Your task to perform on an android device: Open accessibility settings Image 0: 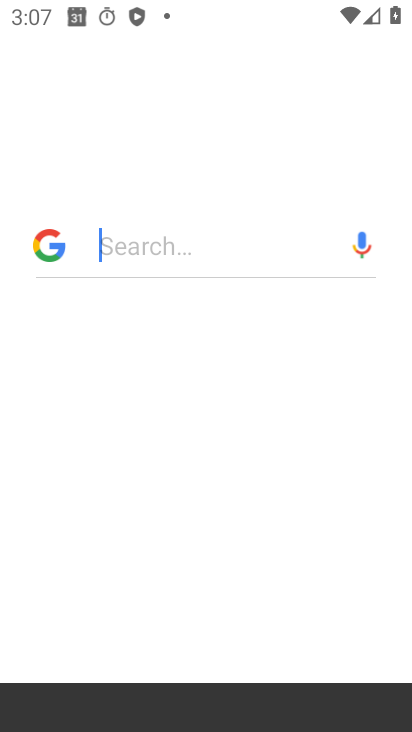
Step 0: drag from (300, 656) to (203, 4)
Your task to perform on an android device: Open accessibility settings Image 1: 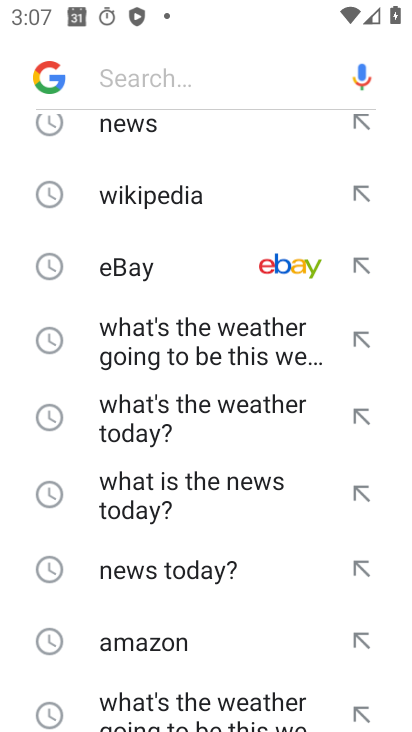
Step 1: press home button
Your task to perform on an android device: Open accessibility settings Image 2: 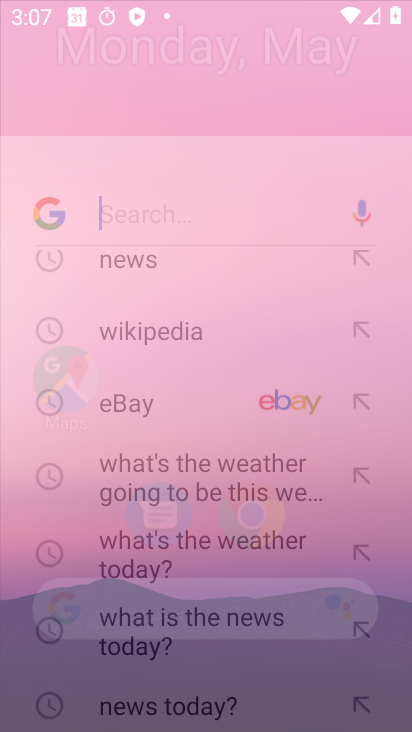
Step 2: press home button
Your task to perform on an android device: Open accessibility settings Image 3: 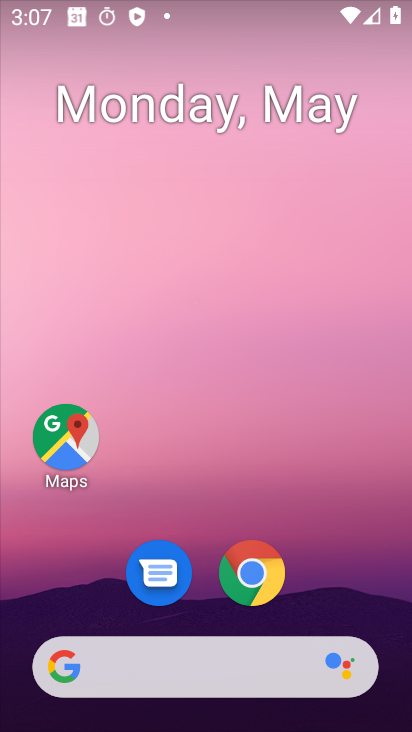
Step 3: drag from (342, 572) to (408, 699)
Your task to perform on an android device: Open accessibility settings Image 4: 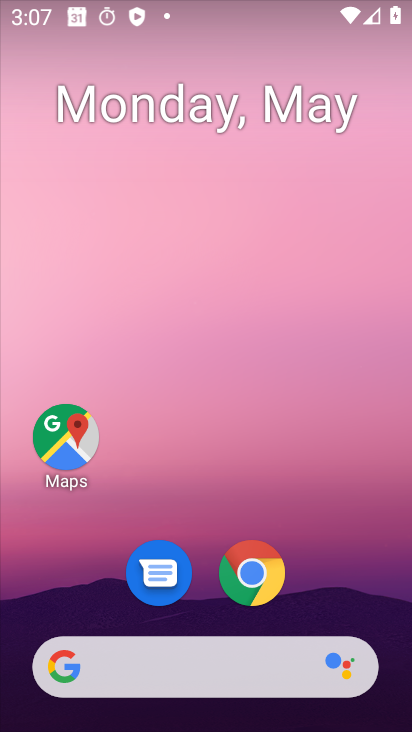
Step 4: click (353, 203)
Your task to perform on an android device: Open accessibility settings Image 5: 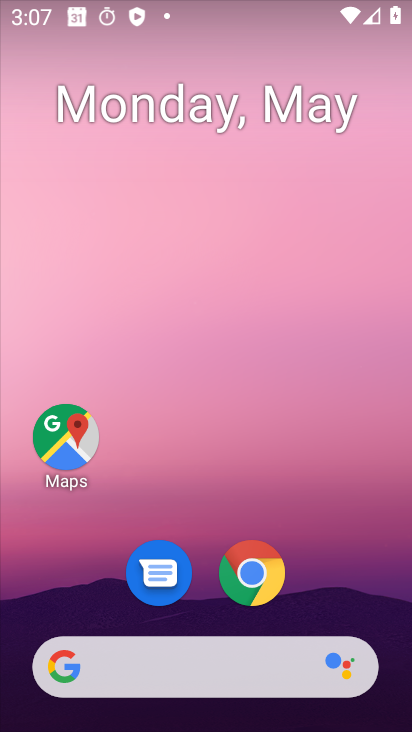
Step 5: drag from (236, 234) to (176, 15)
Your task to perform on an android device: Open accessibility settings Image 6: 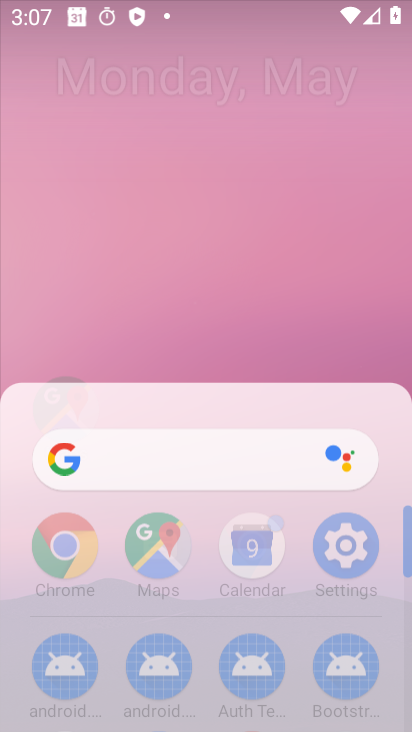
Step 6: drag from (291, 499) to (151, 35)
Your task to perform on an android device: Open accessibility settings Image 7: 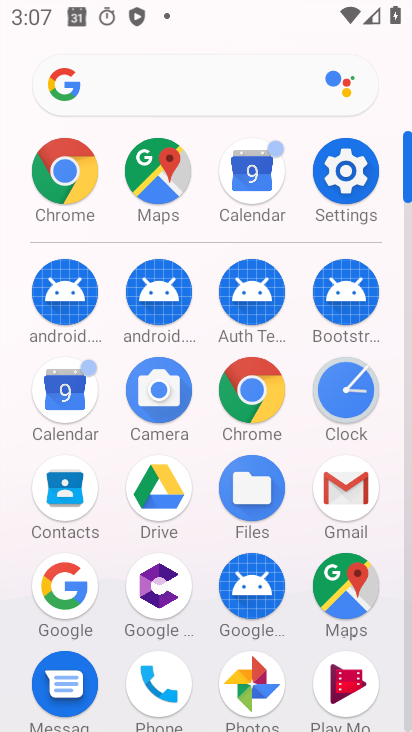
Step 7: drag from (263, 390) to (142, 1)
Your task to perform on an android device: Open accessibility settings Image 8: 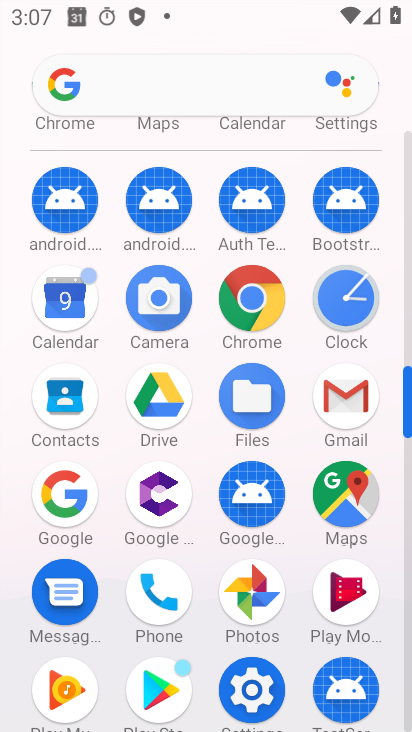
Step 8: click (331, 183)
Your task to perform on an android device: Open accessibility settings Image 9: 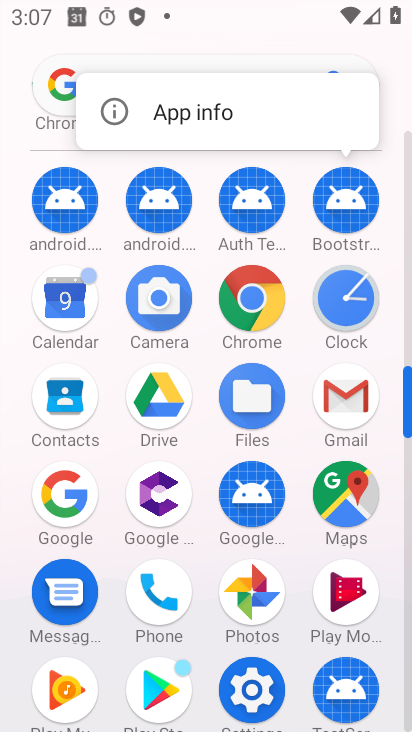
Step 9: press back button
Your task to perform on an android device: Open accessibility settings Image 10: 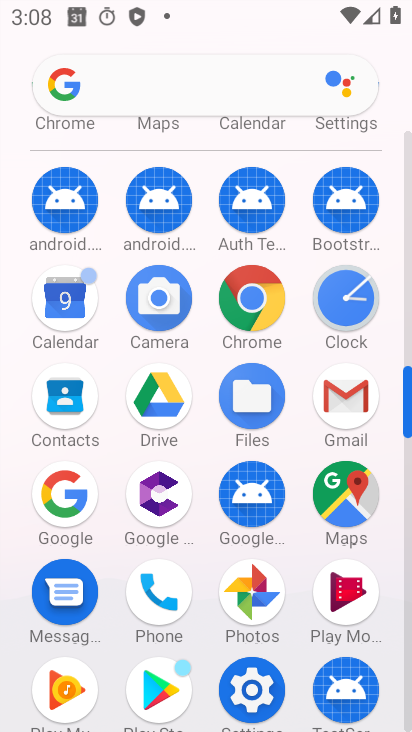
Step 10: click (258, 690)
Your task to perform on an android device: Open accessibility settings Image 11: 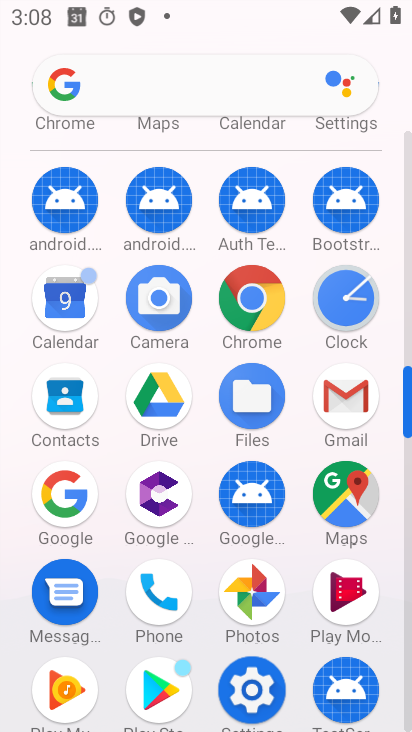
Step 11: click (250, 700)
Your task to perform on an android device: Open accessibility settings Image 12: 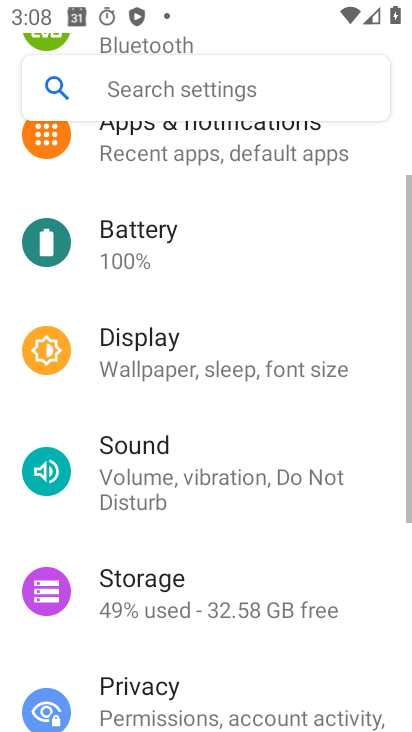
Step 12: click (255, 695)
Your task to perform on an android device: Open accessibility settings Image 13: 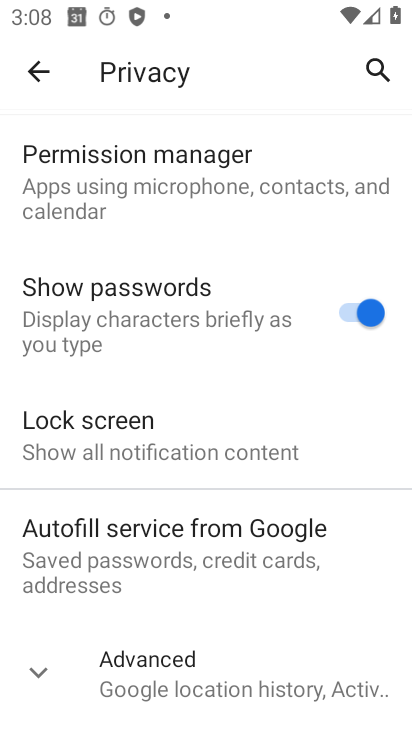
Step 13: click (27, 73)
Your task to perform on an android device: Open accessibility settings Image 14: 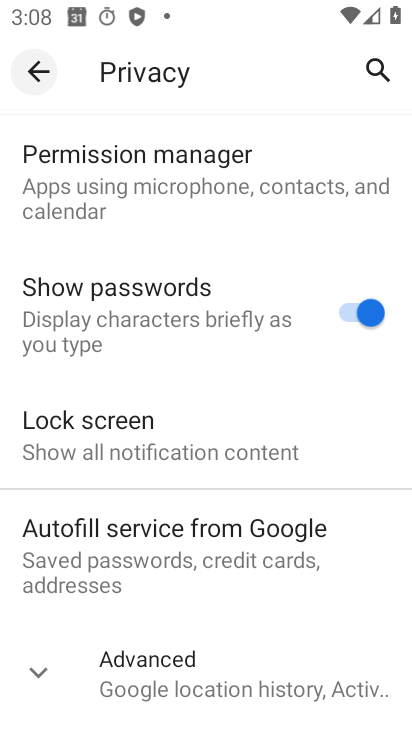
Step 14: click (30, 67)
Your task to perform on an android device: Open accessibility settings Image 15: 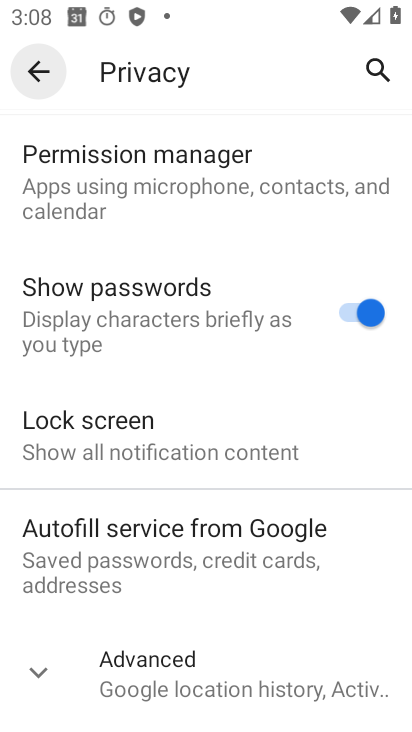
Step 15: click (30, 67)
Your task to perform on an android device: Open accessibility settings Image 16: 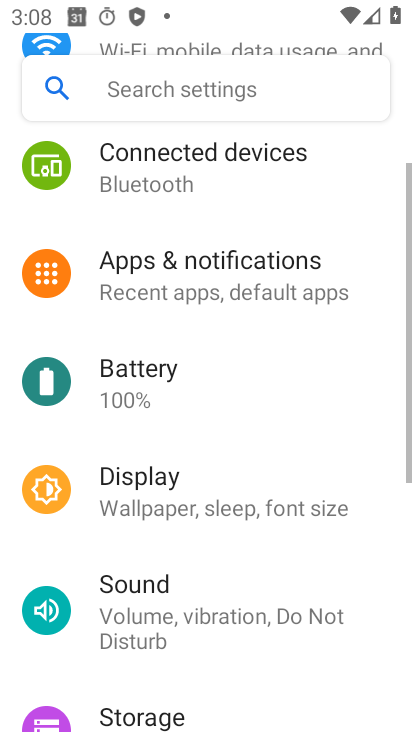
Step 16: drag from (237, 545) to (177, 191)
Your task to perform on an android device: Open accessibility settings Image 17: 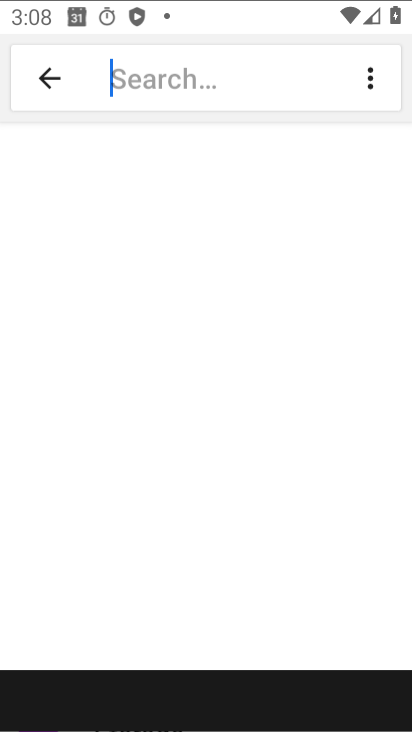
Step 17: drag from (216, 504) to (177, 231)
Your task to perform on an android device: Open accessibility settings Image 18: 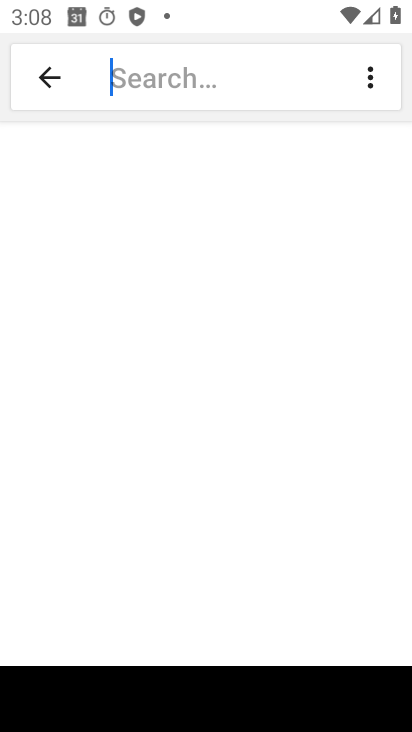
Step 18: click (40, 75)
Your task to perform on an android device: Open accessibility settings Image 19: 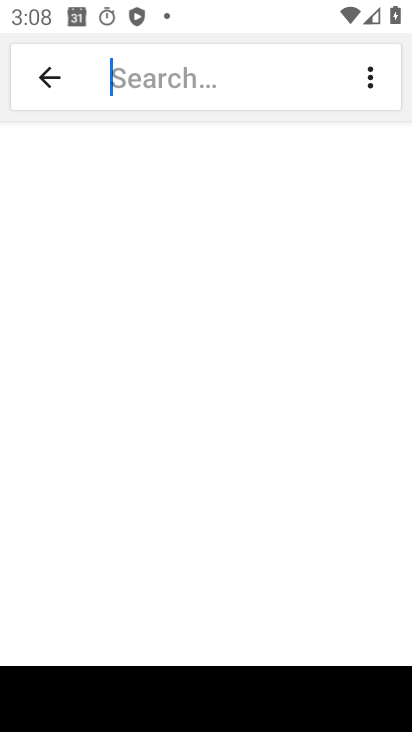
Step 19: click (40, 75)
Your task to perform on an android device: Open accessibility settings Image 20: 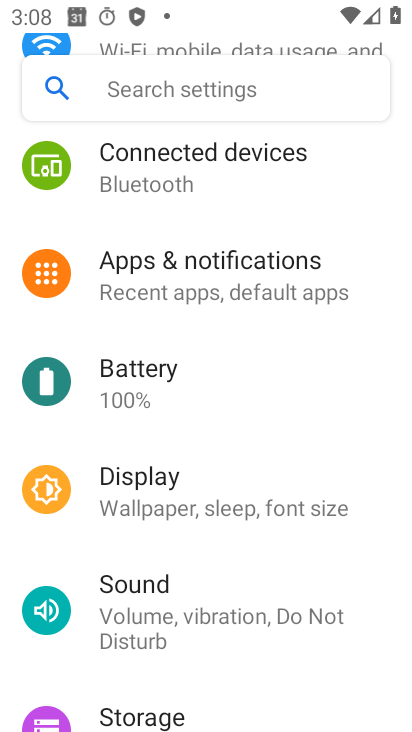
Step 20: drag from (174, 573) to (147, 124)
Your task to perform on an android device: Open accessibility settings Image 21: 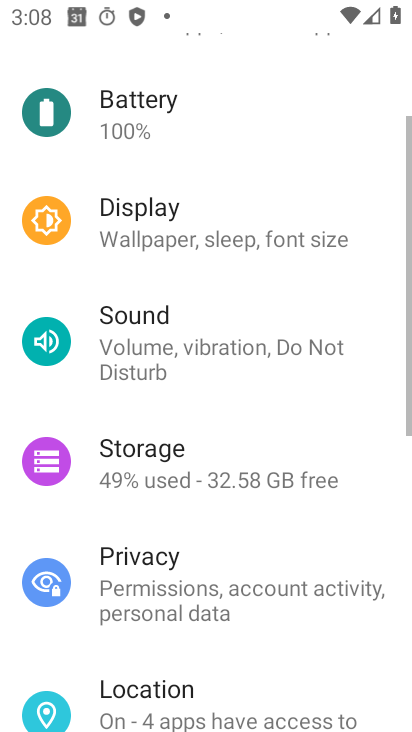
Step 21: drag from (199, 461) to (141, 99)
Your task to perform on an android device: Open accessibility settings Image 22: 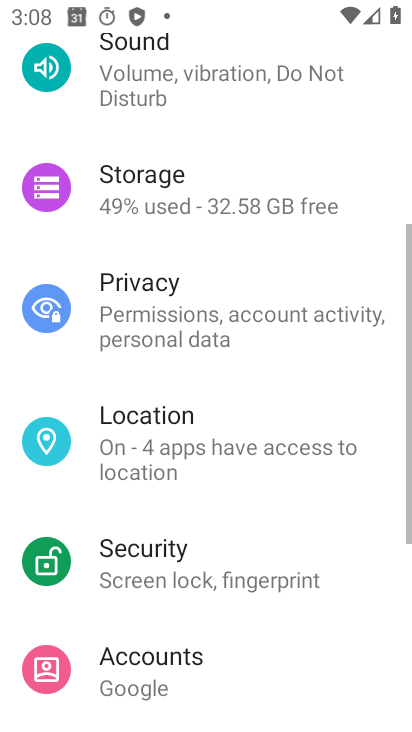
Step 22: drag from (191, 525) to (95, 87)
Your task to perform on an android device: Open accessibility settings Image 23: 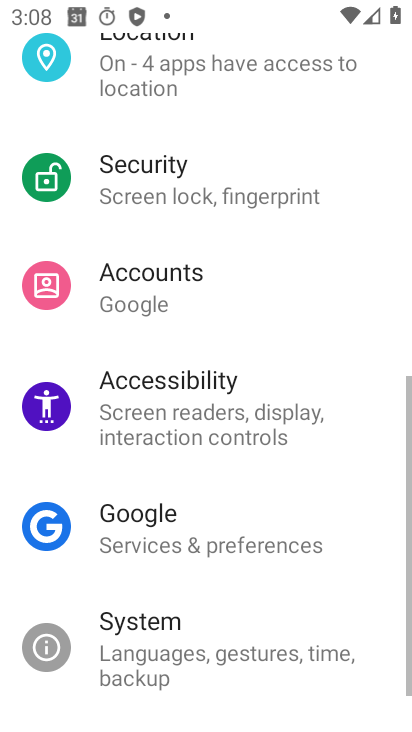
Step 23: drag from (208, 583) to (100, 57)
Your task to perform on an android device: Open accessibility settings Image 24: 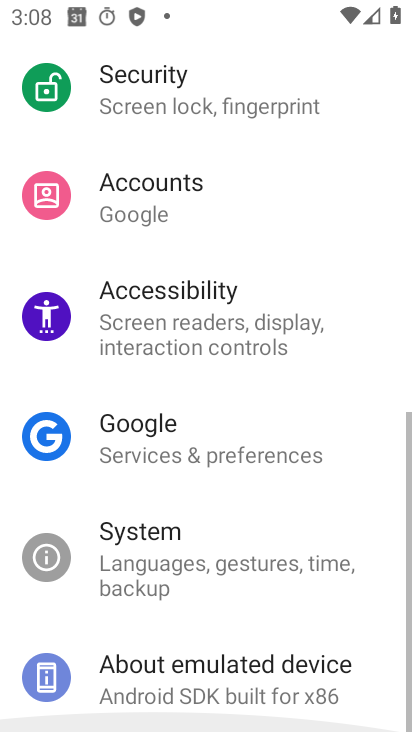
Step 24: drag from (183, 527) to (148, 32)
Your task to perform on an android device: Open accessibility settings Image 25: 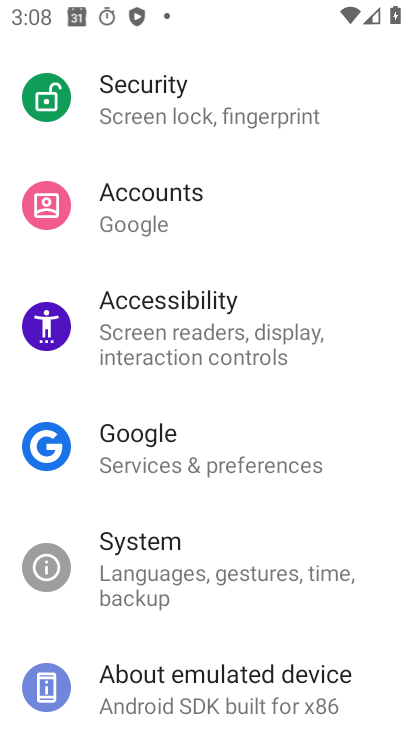
Step 25: click (166, 328)
Your task to perform on an android device: Open accessibility settings Image 26: 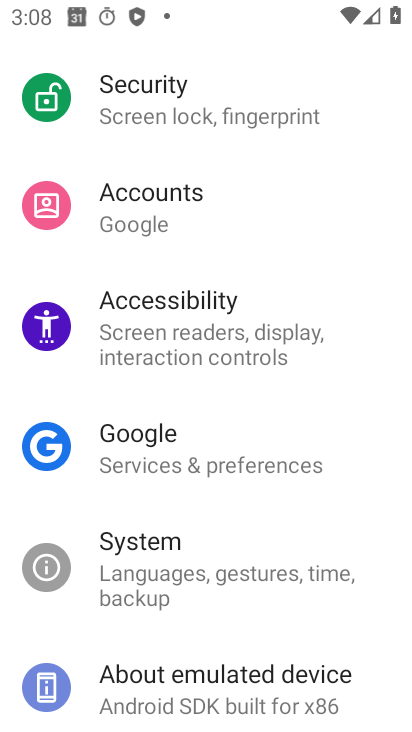
Step 26: click (166, 328)
Your task to perform on an android device: Open accessibility settings Image 27: 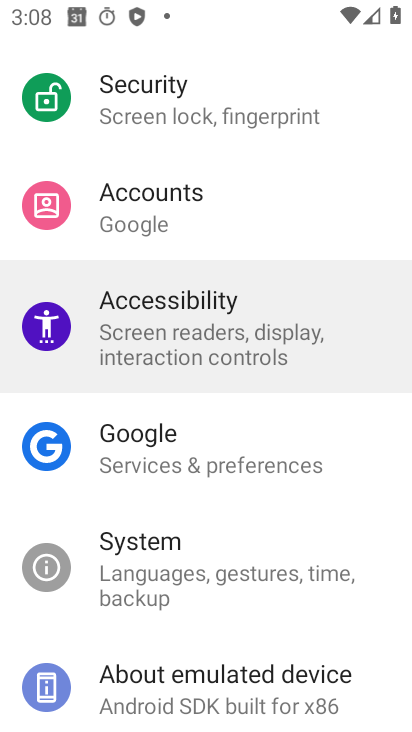
Step 27: click (166, 328)
Your task to perform on an android device: Open accessibility settings Image 28: 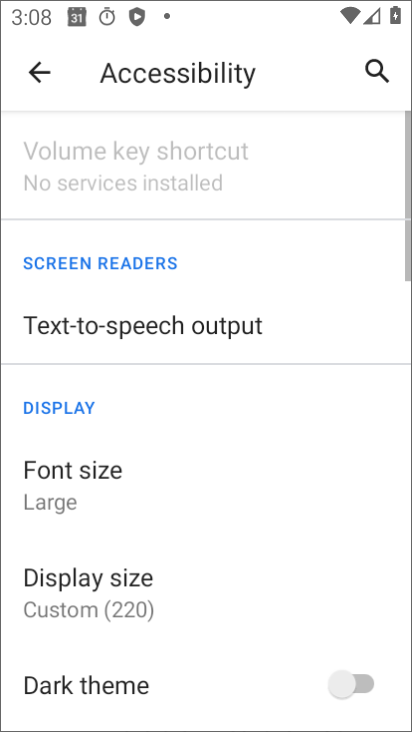
Step 28: click (165, 329)
Your task to perform on an android device: Open accessibility settings Image 29: 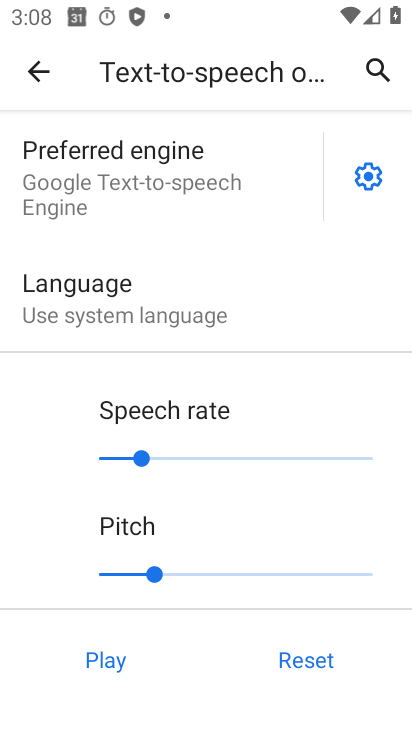
Step 29: click (26, 67)
Your task to perform on an android device: Open accessibility settings Image 30: 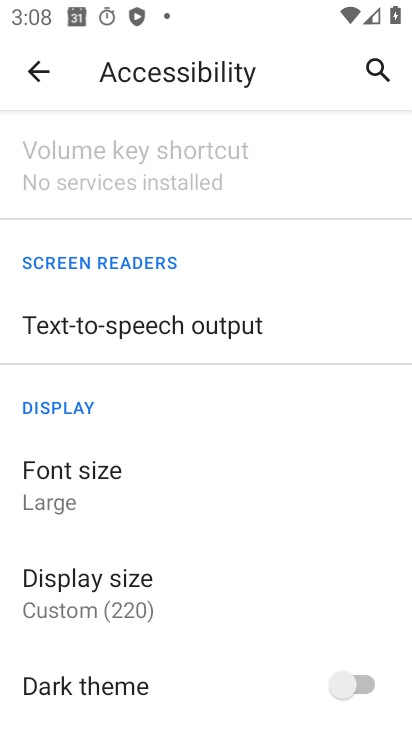
Step 30: task complete